Your task to perform on an android device: move a message to another label in the gmail app Image 0: 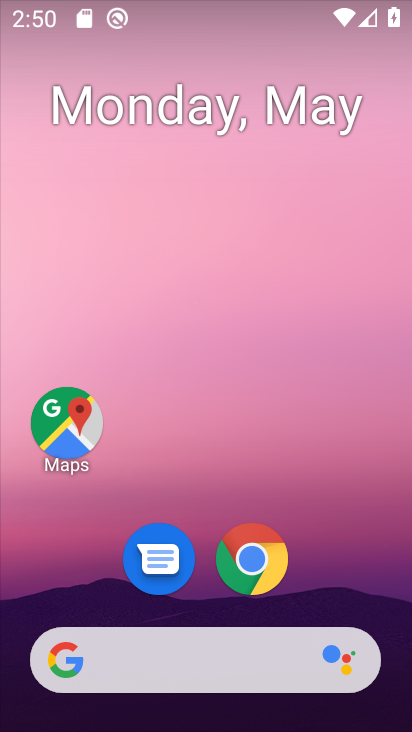
Step 0: drag from (242, 691) to (70, 29)
Your task to perform on an android device: move a message to another label in the gmail app Image 1: 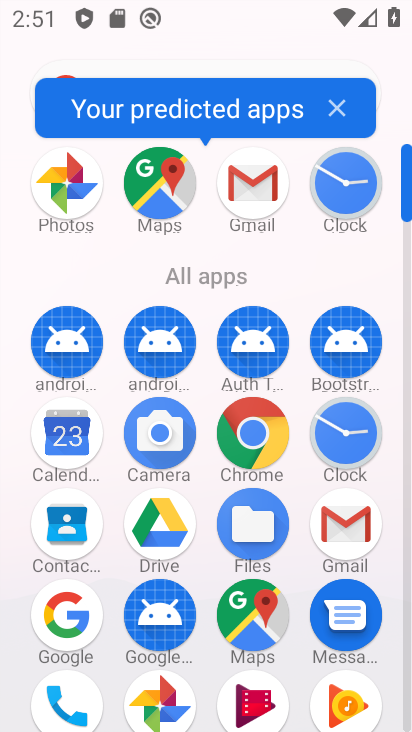
Step 1: click (348, 525)
Your task to perform on an android device: move a message to another label in the gmail app Image 2: 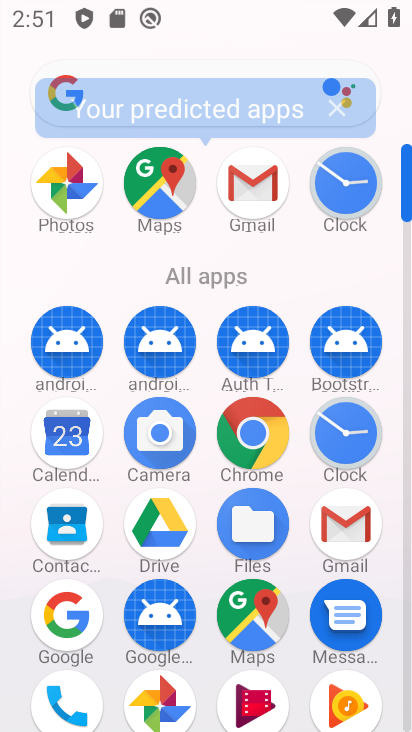
Step 2: click (348, 525)
Your task to perform on an android device: move a message to another label in the gmail app Image 3: 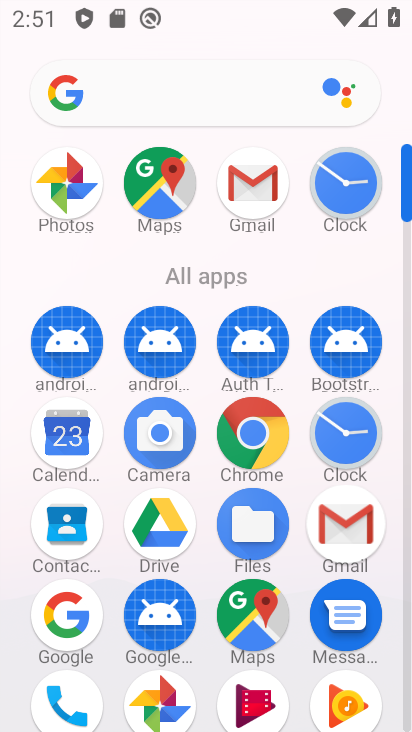
Step 3: click (348, 525)
Your task to perform on an android device: move a message to another label in the gmail app Image 4: 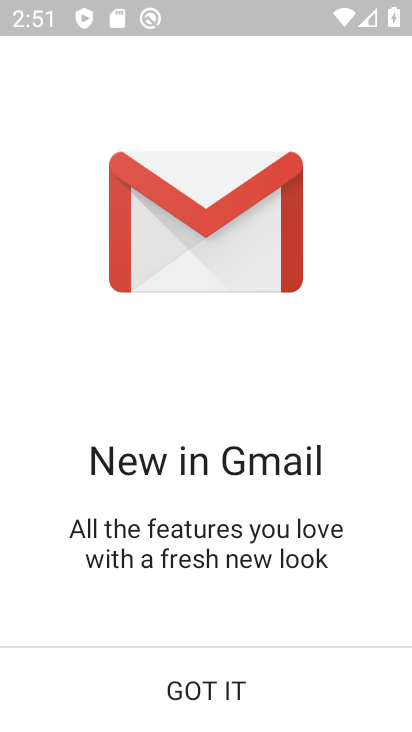
Step 4: click (176, 683)
Your task to perform on an android device: move a message to another label in the gmail app Image 5: 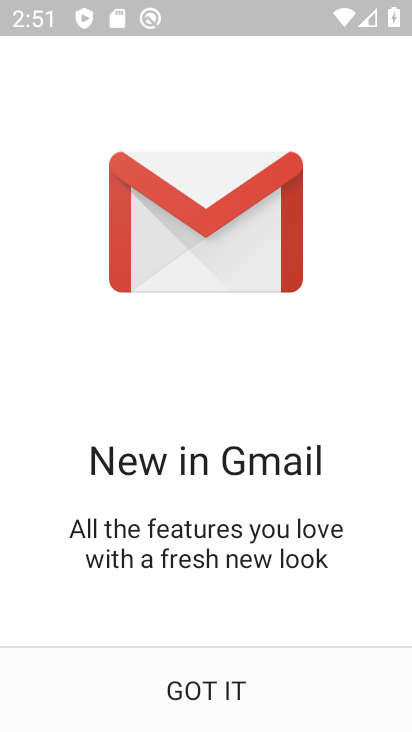
Step 5: click (207, 696)
Your task to perform on an android device: move a message to another label in the gmail app Image 6: 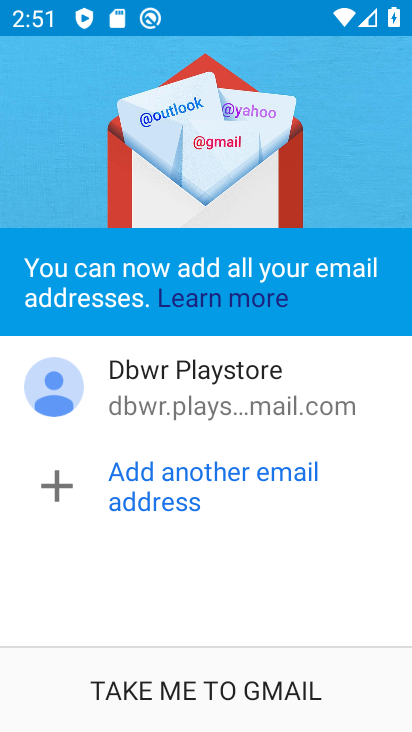
Step 6: click (214, 690)
Your task to perform on an android device: move a message to another label in the gmail app Image 7: 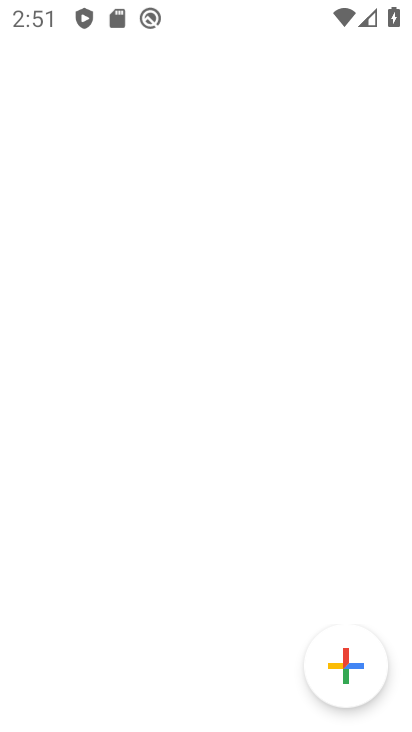
Step 7: click (183, 681)
Your task to perform on an android device: move a message to another label in the gmail app Image 8: 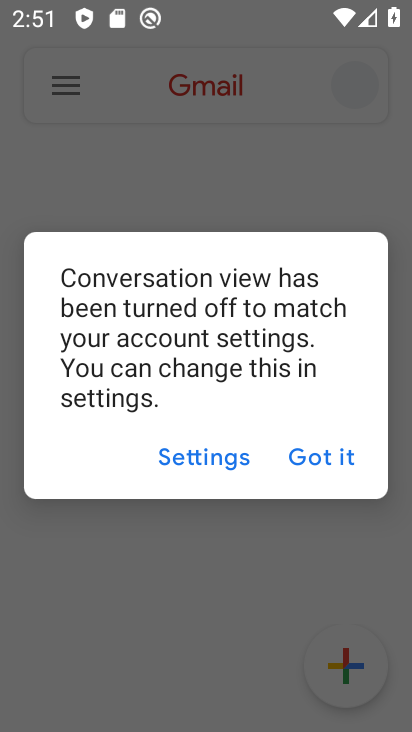
Step 8: click (190, 675)
Your task to perform on an android device: move a message to another label in the gmail app Image 9: 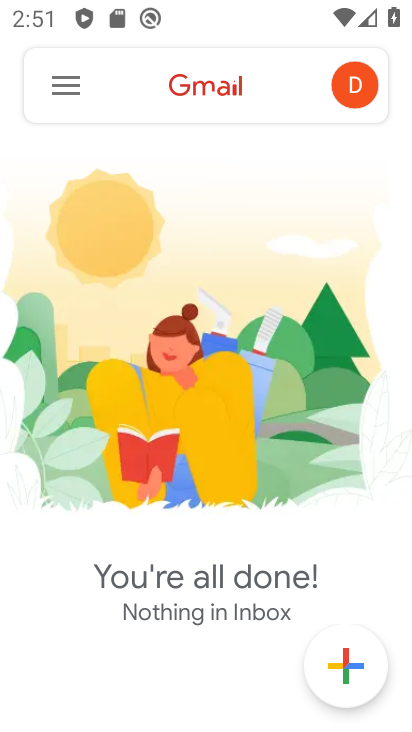
Step 9: click (59, 87)
Your task to perform on an android device: move a message to another label in the gmail app Image 10: 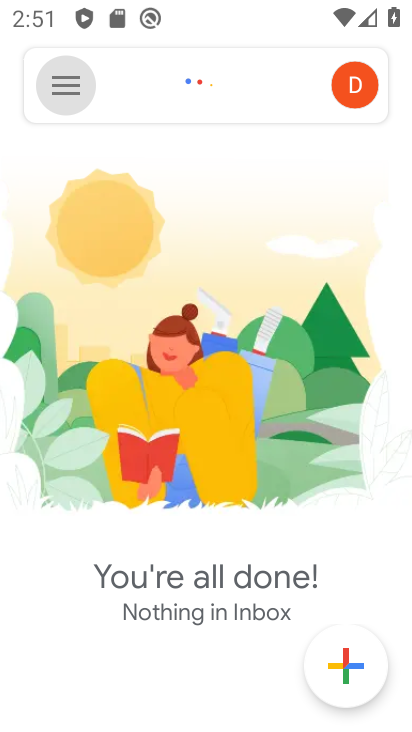
Step 10: click (52, 94)
Your task to perform on an android device: move a message to another label in the gmail app Image 11: 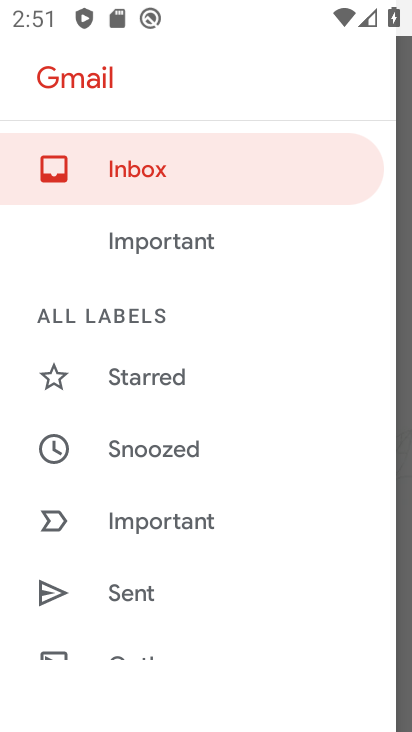
Step 11: drag from (186, 540) to (181, 216)
Your task to perform on an android device: move a message to another label in the gmail app Image 12: 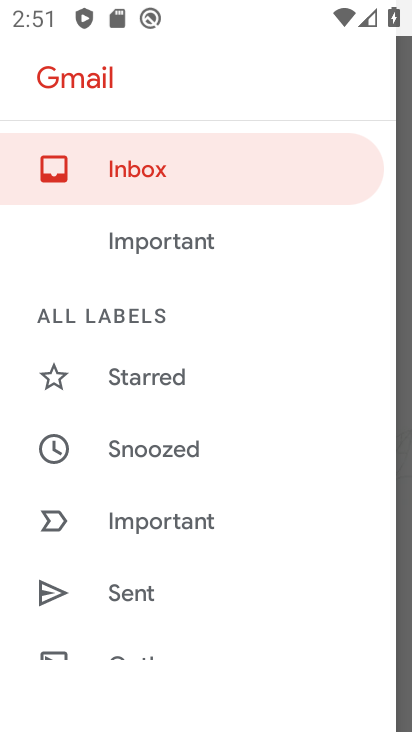
Step 12: drag from (214, 428) to (201, 181)
Your task to perform on an android device: move a message to another label in the gmail app Image 13: 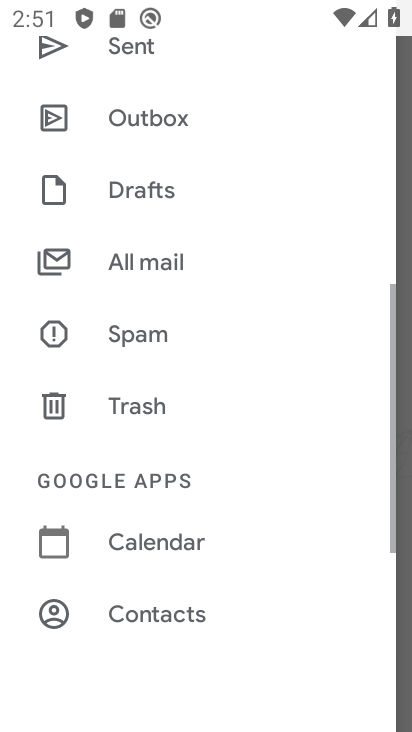
Step 13: drag from (174, 466) to (168, 164)
Your task to perform on an android device: move a message to another label in the gmail app Image 14: 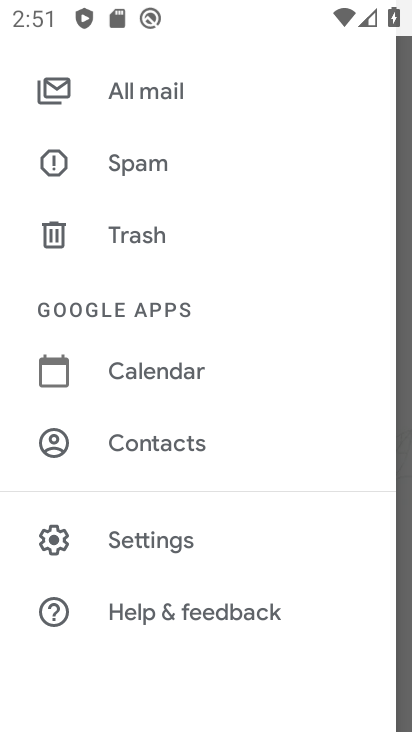
Step 14: click (147, 94)
Your task to perform on an android device: move a message to another label in the gmail app Image 15: 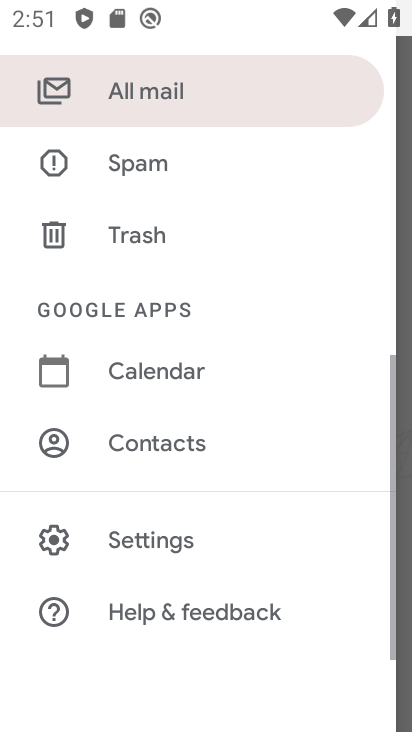
Step 15: click (148, 92)
Your task to perform on an android device: move a message to another label in the gmail app Image 16: 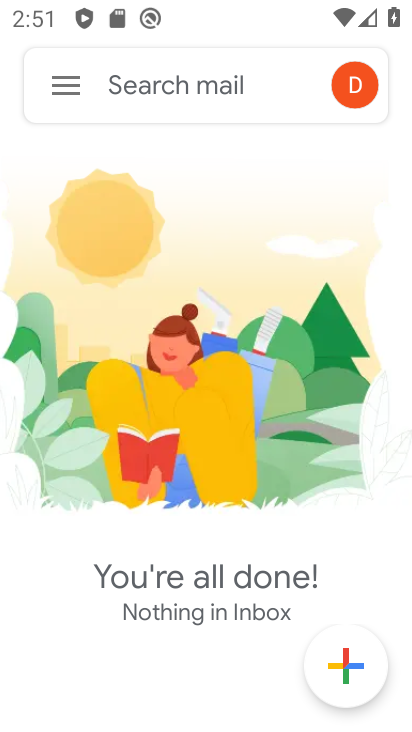
Step 16: click (150, 92)
Your task to perform on an android device: move a message to another label in the gmail app Image 17: 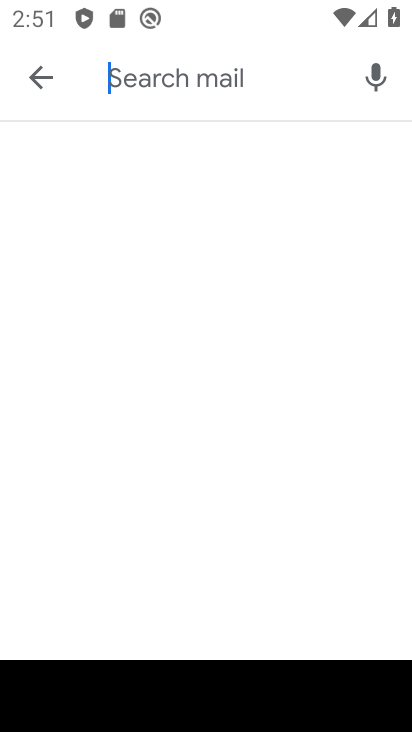
Step 17: task complete